Your task to perform on an android device: open app "Adobe Acrobat Reader: Edit PDF" (install if not already installed), go to login, and select forgot password Image 0: 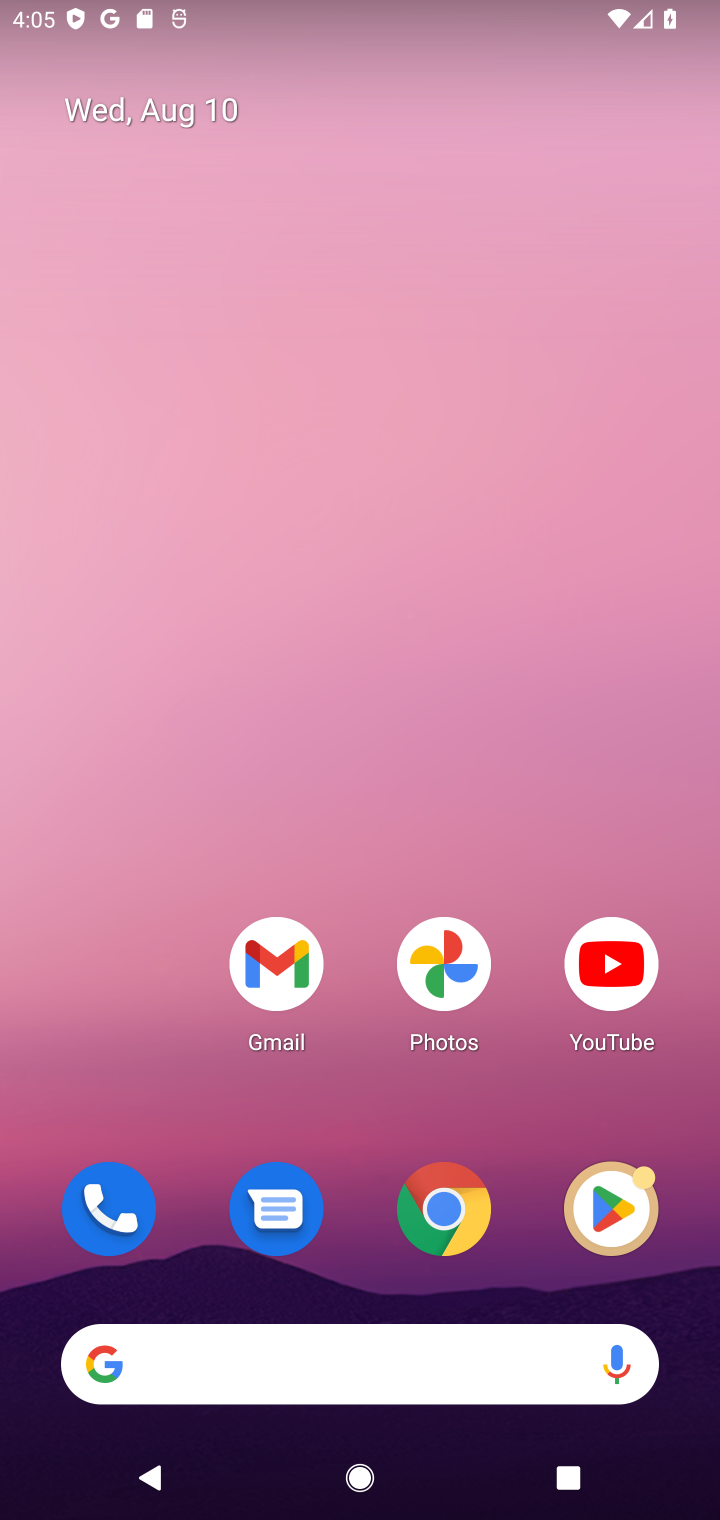
Step 0: click (626, 1234)
Your task to perform on an android device: open app "Adobe Acrobat Reader: Edit PDF" (install if not already installed), go to login, and select forgot password Image 1: 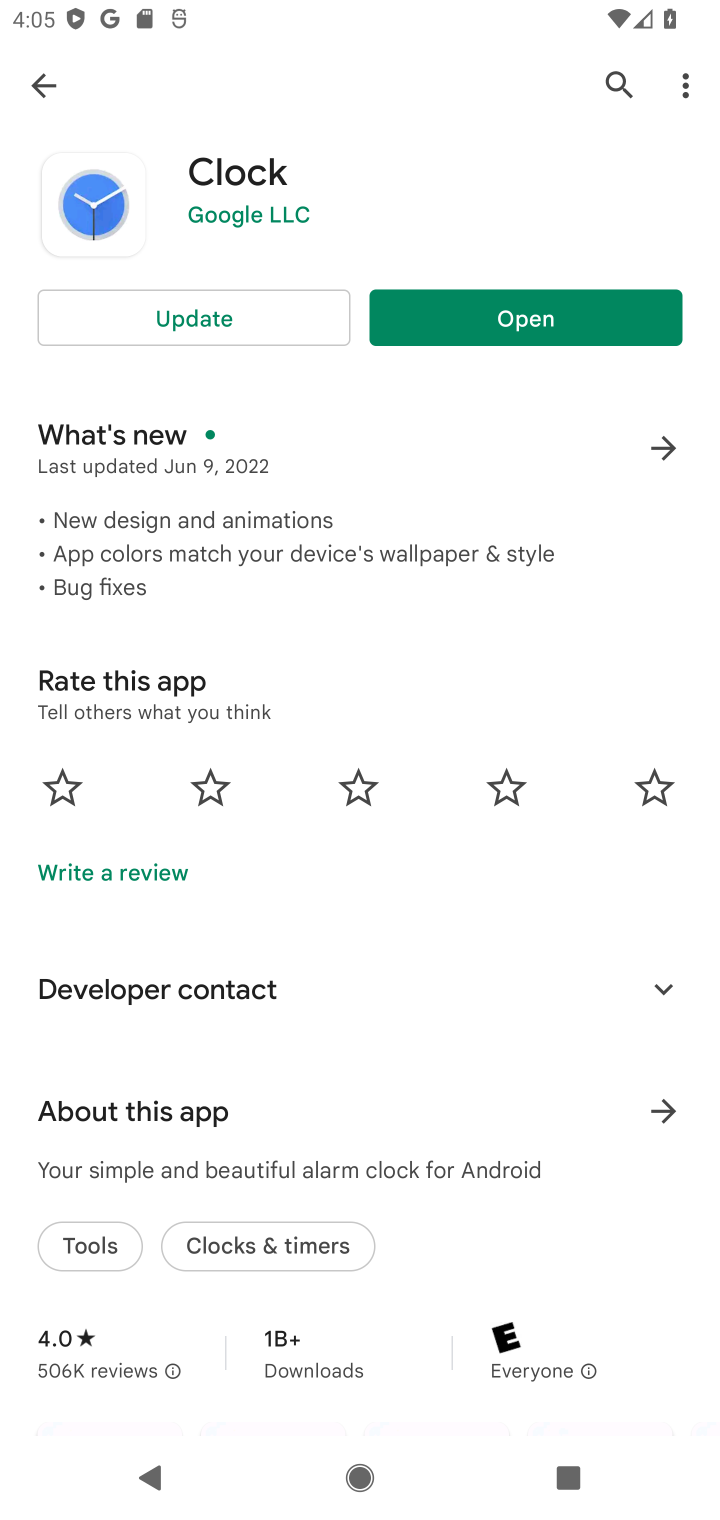
Step 1: click (634, 81)
Your task to perform on an android device: open app "Adobe Acrobat Reader: Edit PDF" (install if not already installed), go to login, and select forgot password Image 2: 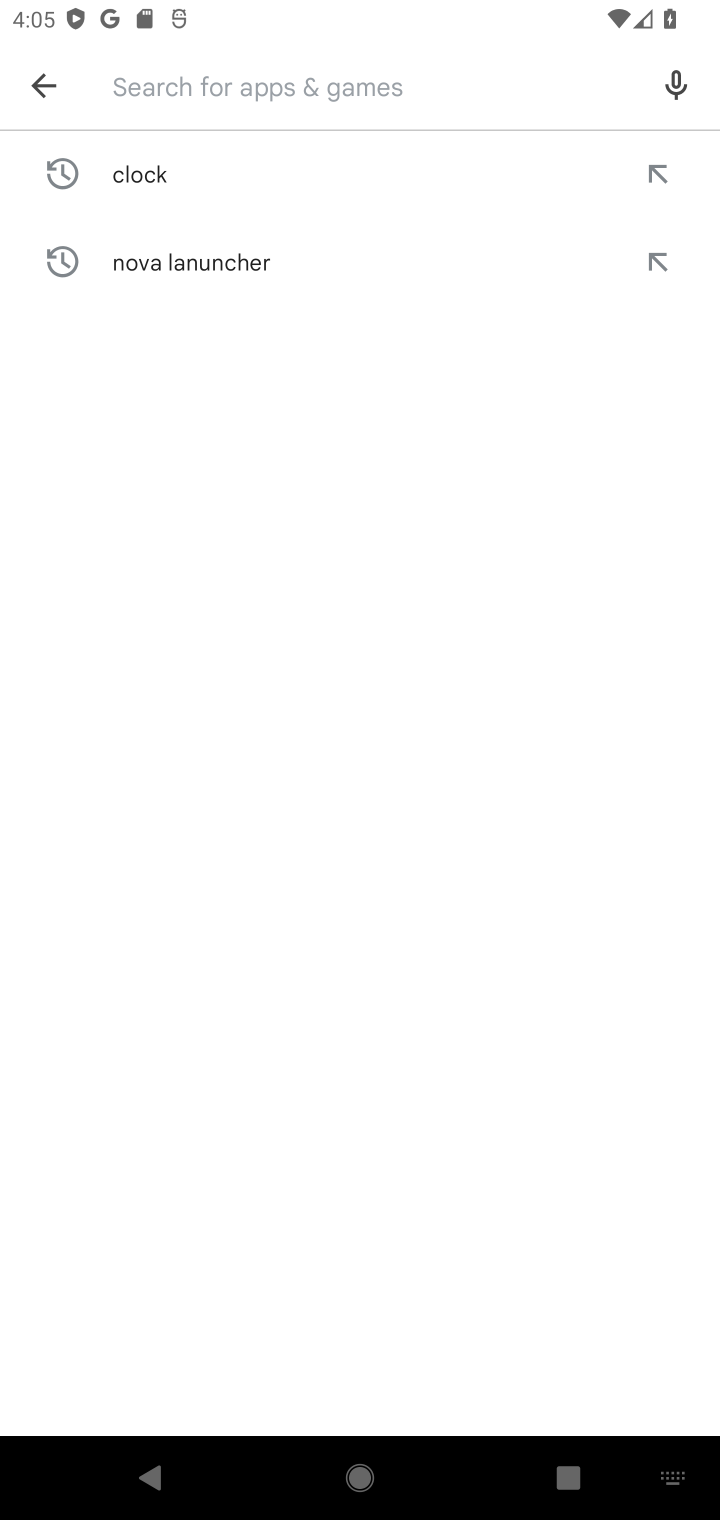
Step 2: type "adobe acrobat"
Your task to perform on an android device: open app "Adobe Acrobat Reader: Edit PDF" (install if not already installed), go to login, and select forgot password Image 3: 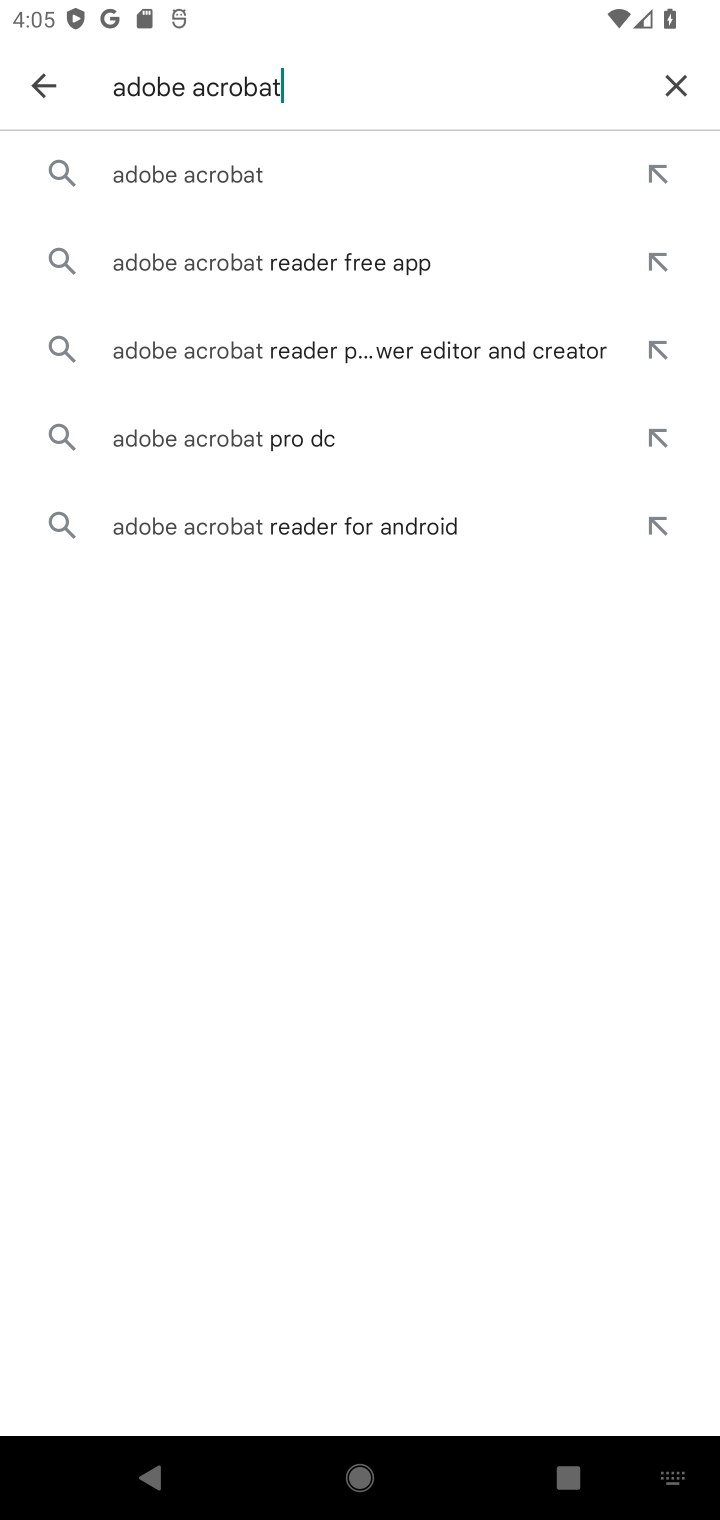
Step 3: click (204, 178)
Your task to perform on an android device: open app "Adobe Acrobat Reader: Edit PDF" (install if not already installed), go to login, and select forgot password Image 4: 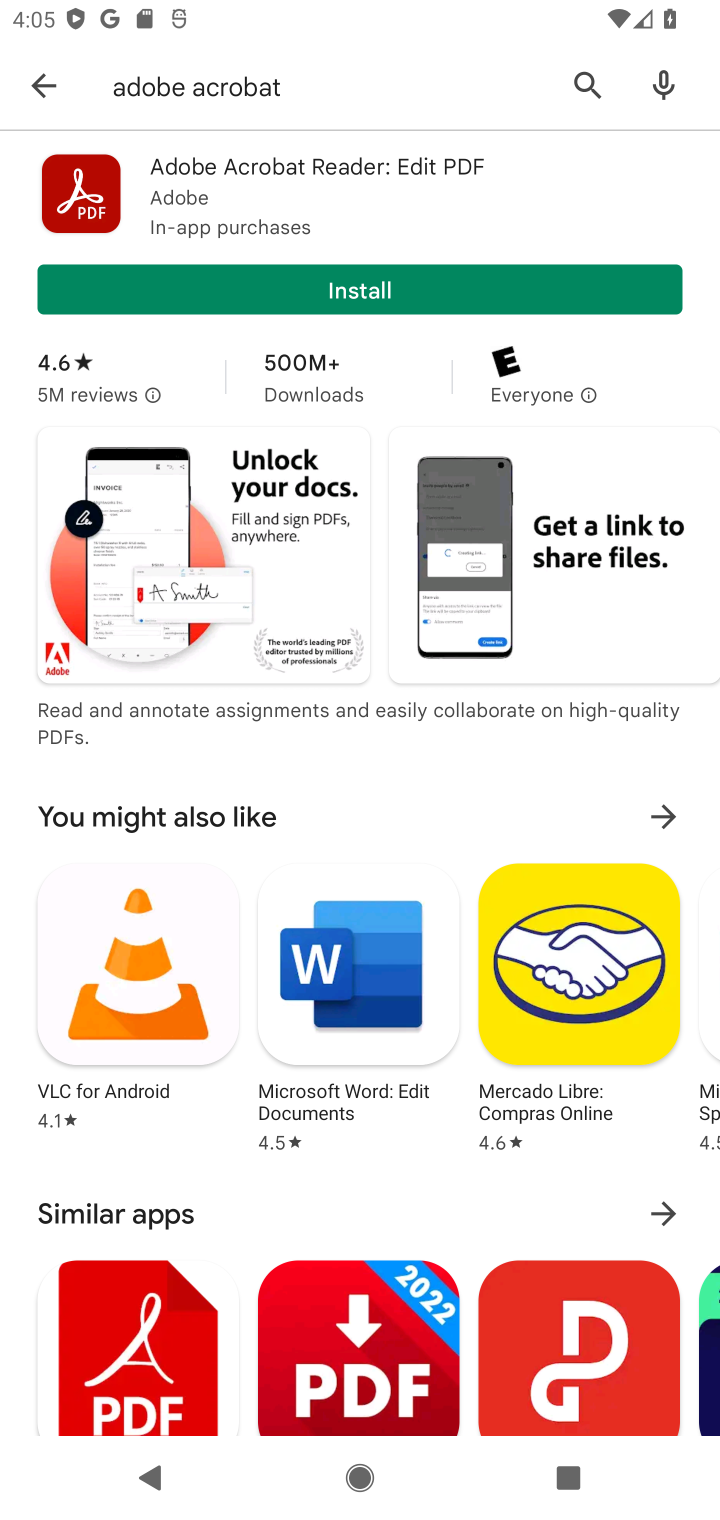
Step 4: click (499, 295)
Your task to perform on an android device: open app "Adobe Acrobat Reader: Edit PDF" (install if not already installed), go to login, and select forgot password Image 5: 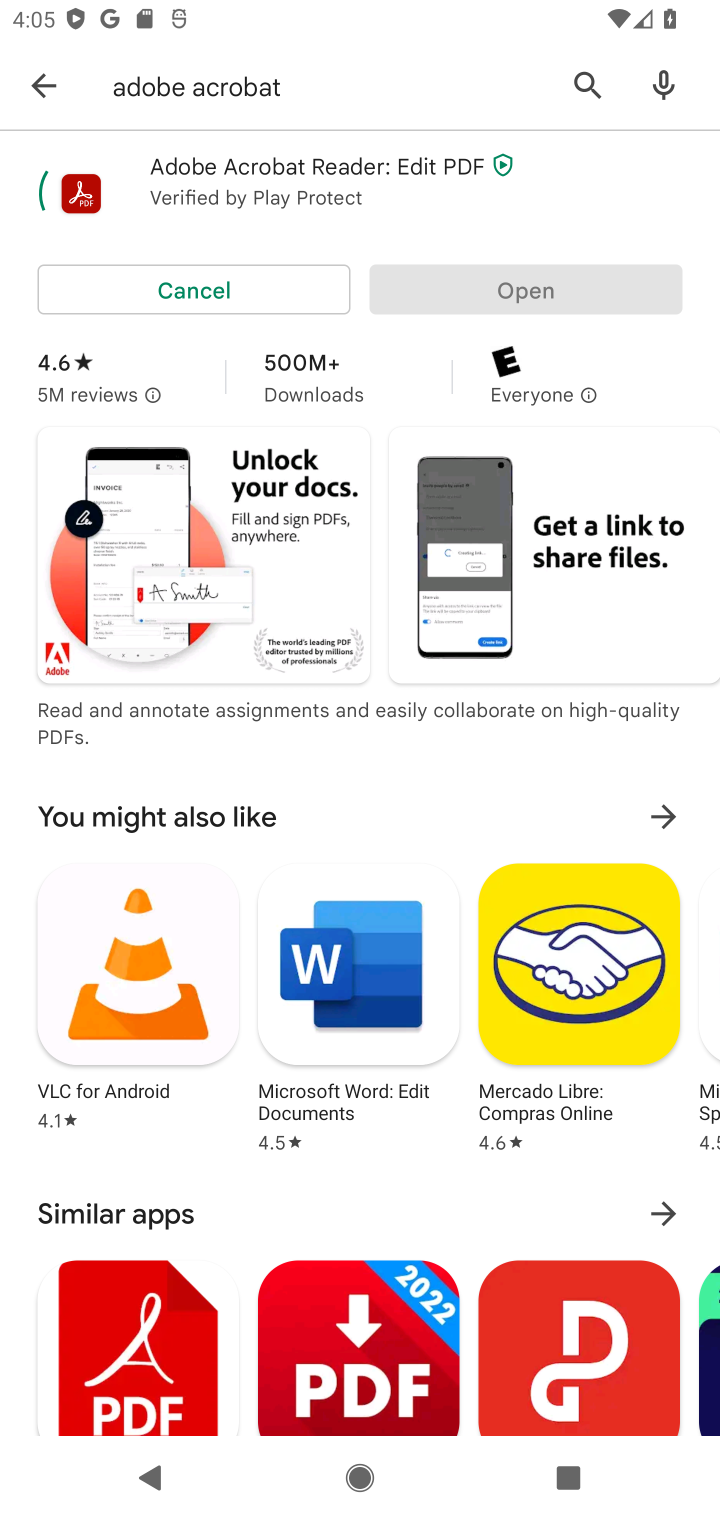
Step 5: task complete